Your task to perform on an android device: turn off location Image 0: 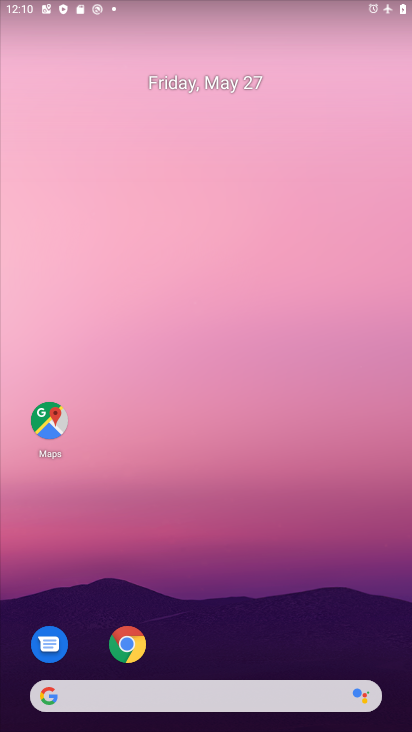
Step 0: drag from (221, 660) to (300, 132)
Your task to perform on an android device: turn off location Image 1: 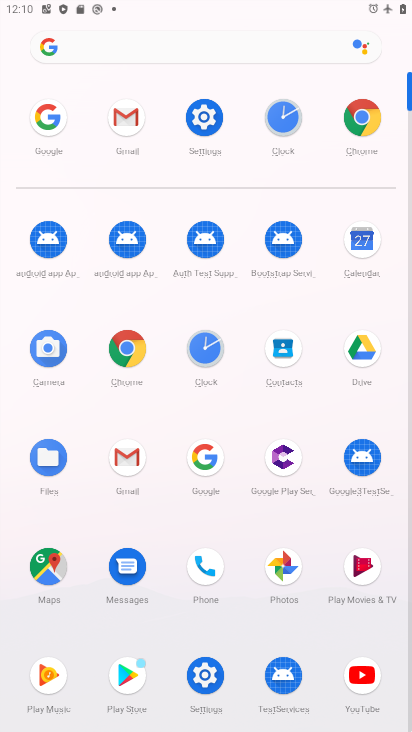
Step 1: click (206, 121)
Your task to perform on an android device: turn off location Image 2: 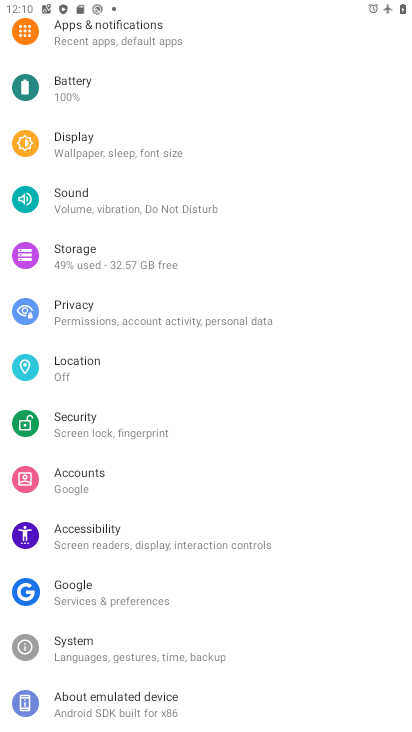
Step 2: click (114, 369)
Your task to perform on an android device: turn off location Image 3: 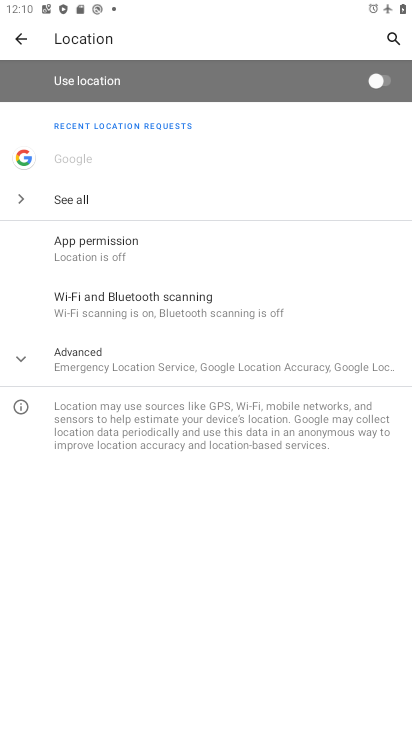
Step 3: task complete